Your task to perform on an android device: Go to notification settings Image 0: 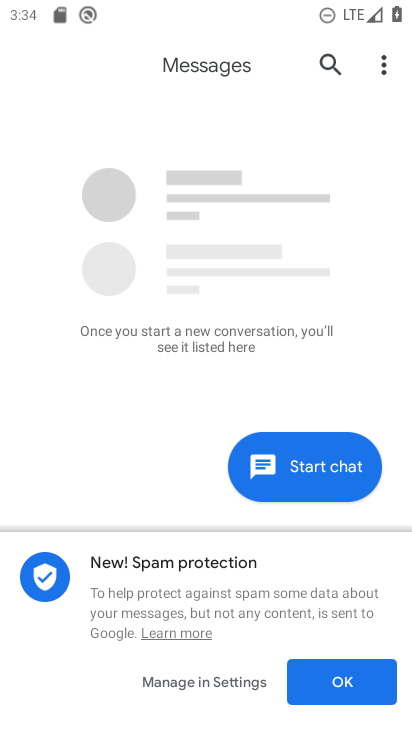
Step 0: press home button
Your task to perform on an android device: Go to notification settings Image 1: 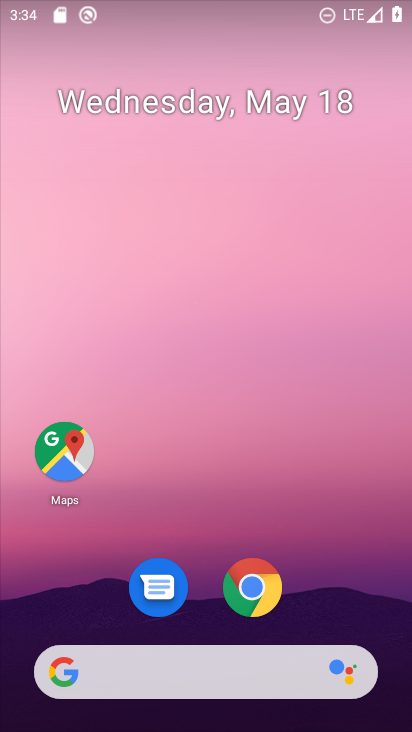
Step 1: drag from (215, 648) to (227, 116)
Your task to perform on an android device: Go to notification settings Image 2: 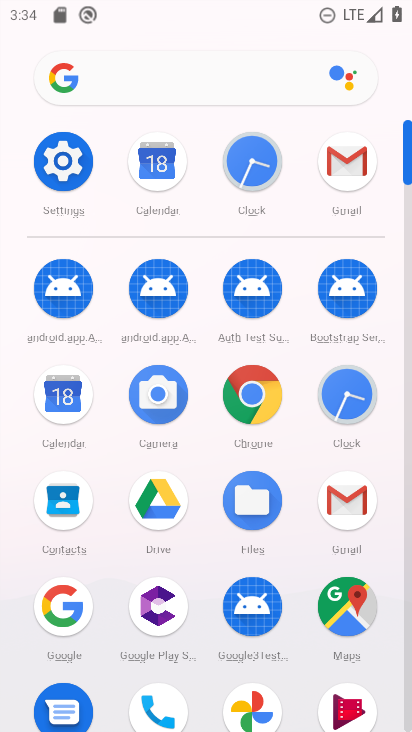
Step 2: click (51, 169)
Your task to perform on an android device: Go to notification settings Image 3: 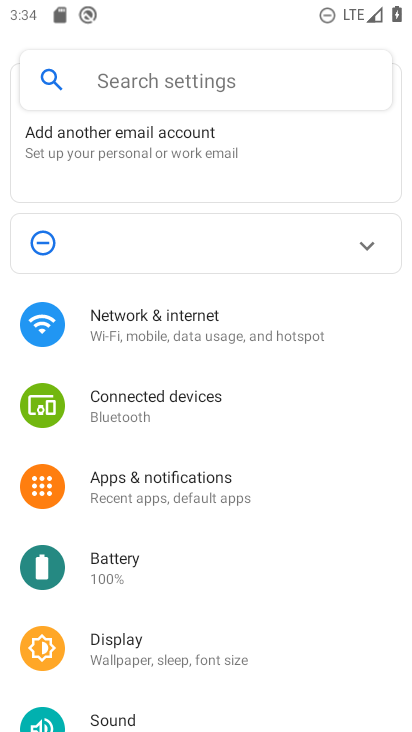
Step 3: click (252, 497)
Your task to perform on an android device: Go to notification settings Image 4: 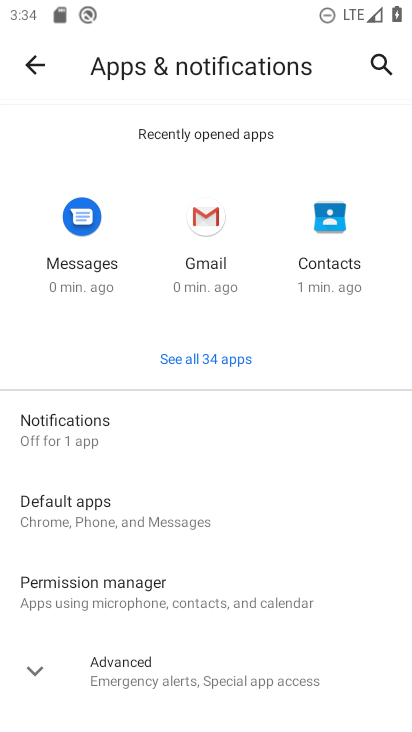
Step 4: task complete